Your task to perform on an android device: toggle javascript in the chrome app Image 0: 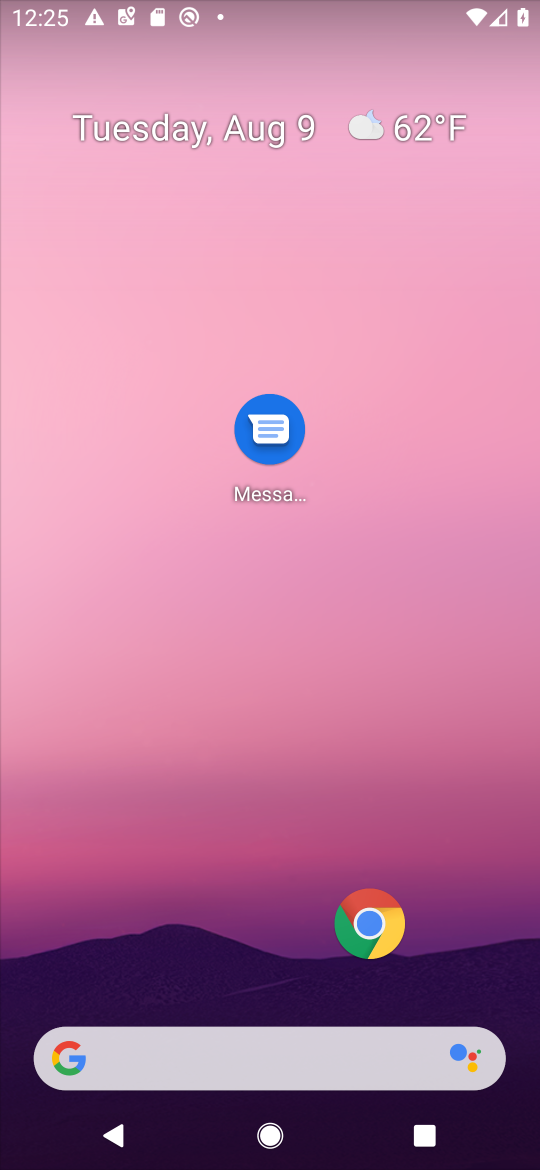
Step 0: click (357, 889)
Your task to perform on an android device: toggle javascript in the chrome app Image 1: 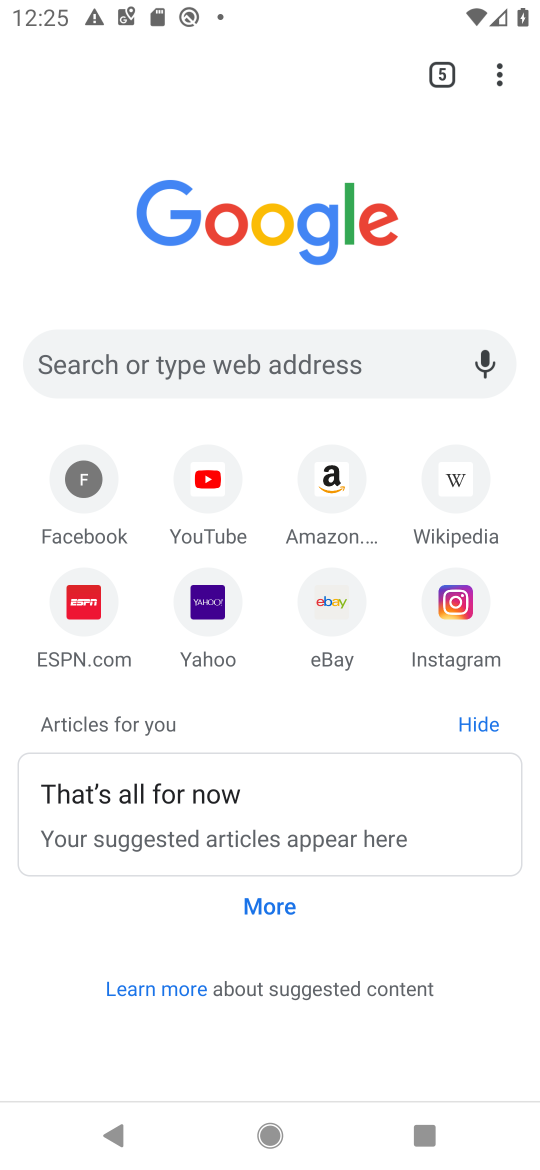
Step 1: click (496, 78)
Your task to perform on an android device: toggle javascript in the chrome app Image 2: 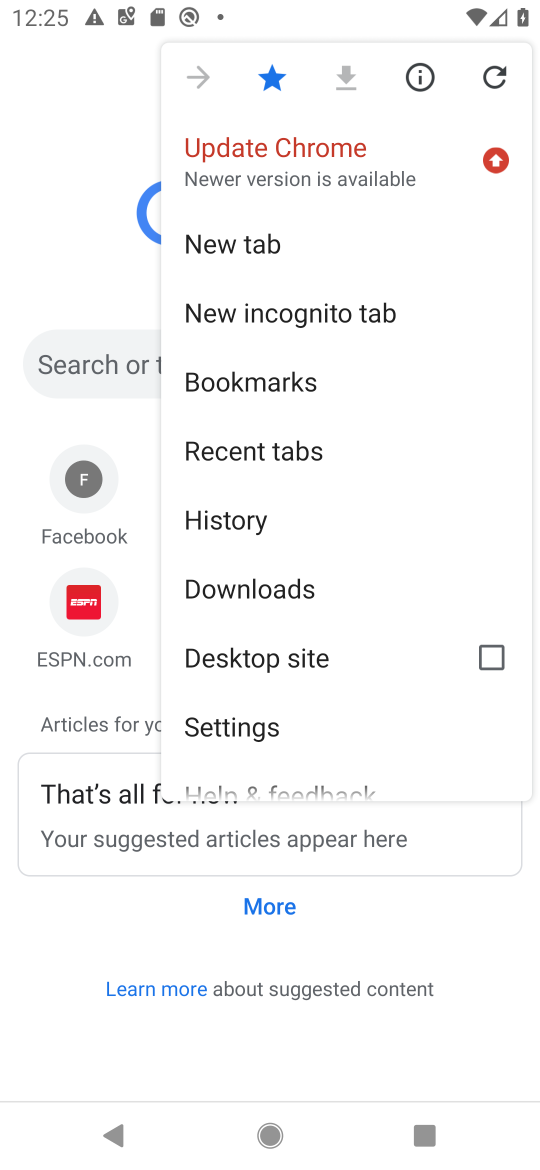
Step 2: click (245, 731)
Your task to perform on an android device: toggle javascript in the chrome app Image 3: 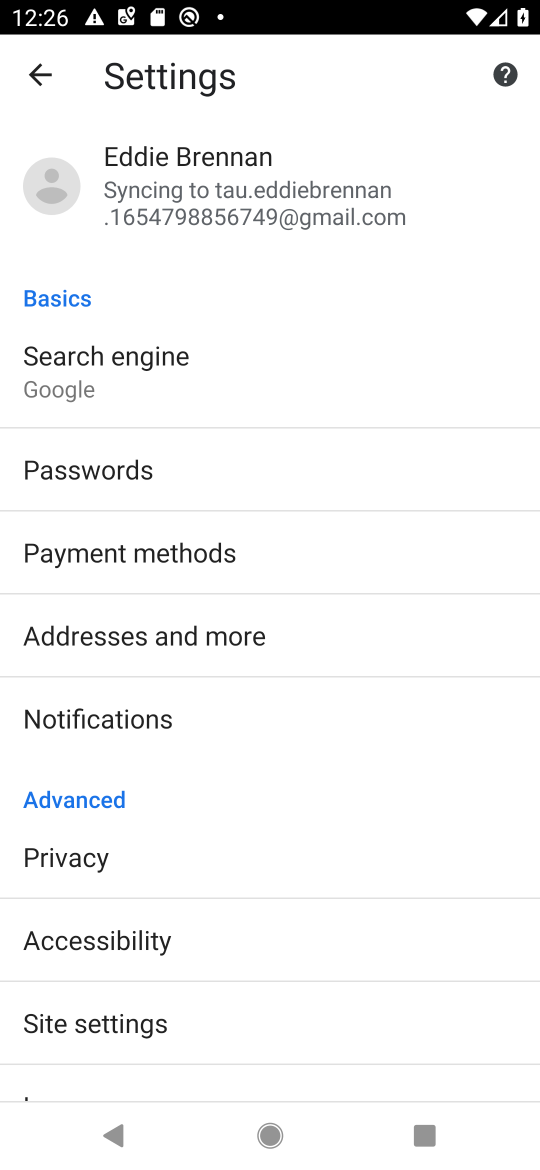
Step 3: click (99, 1011)
Your task to perform on an android device: toggle javascript in the chrome app Image 4: 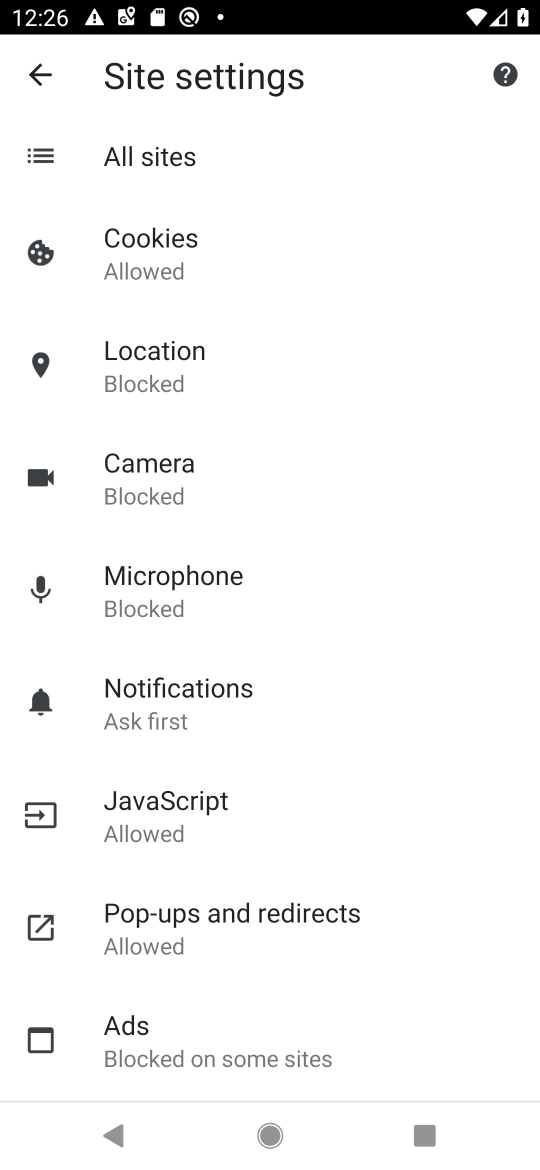
Step 4: click (172, 806)
Your task to perform on an android device: toggle javascript in the chrome app Image 5: 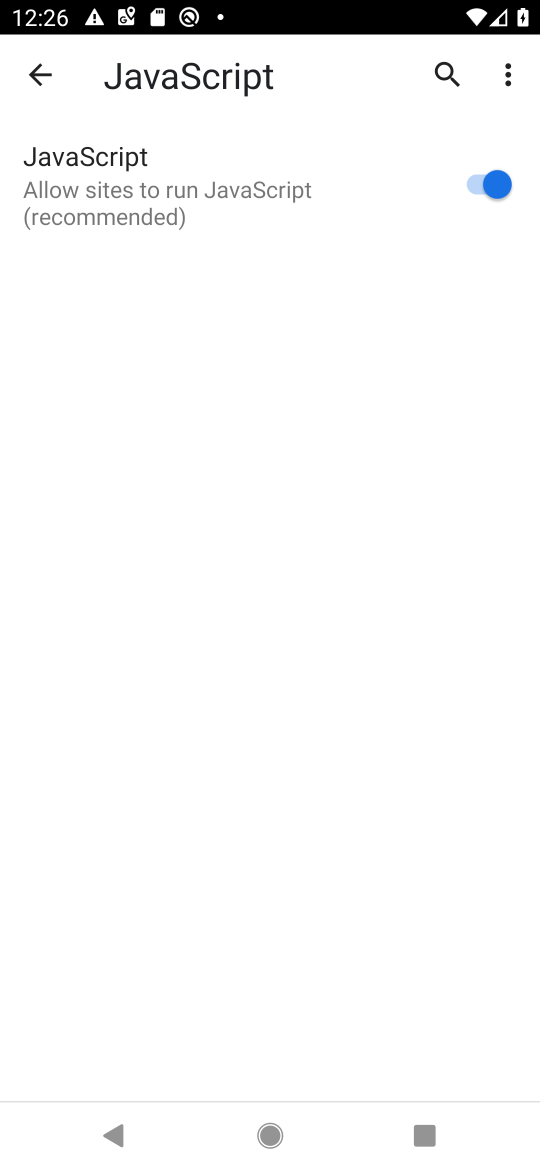
Step 5: task complete